Your task to perform on an android device: Open accessibility settings Image 0: 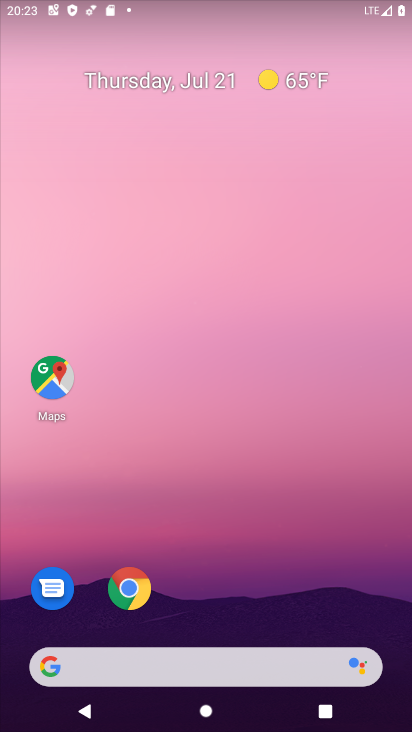
Step 0: drag from (213, 612) to (160, 40)
Your task to perform on an android device: Open accessibility settings Image 1: 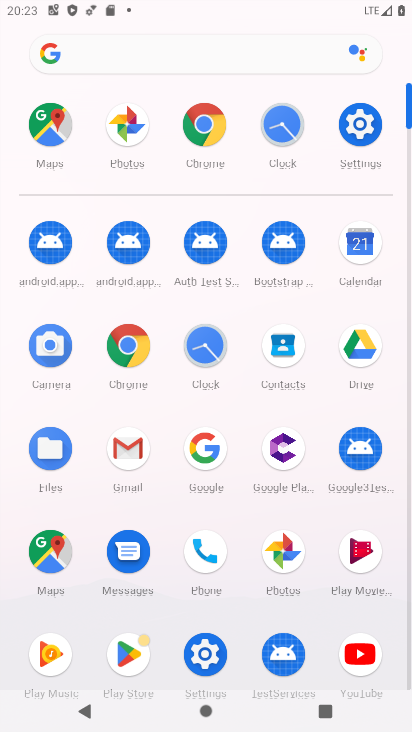
Step 1: click (355, 121)
Your task to perform on an android device: Open accessibility settings Image 2: 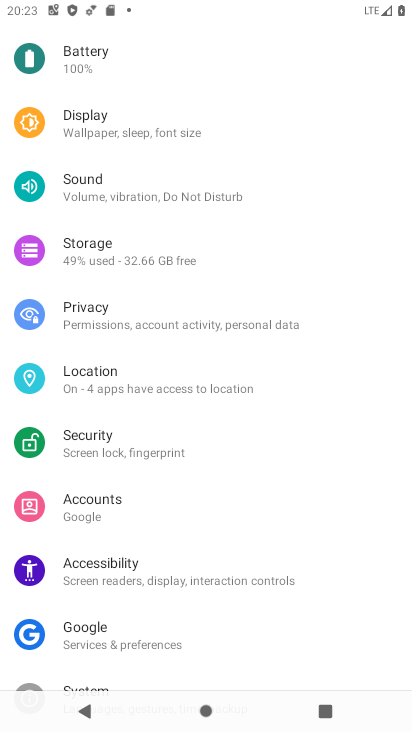
Step 2: click (120, 559)
Your task to perform on an android device: Open accessibility settings Image 3: 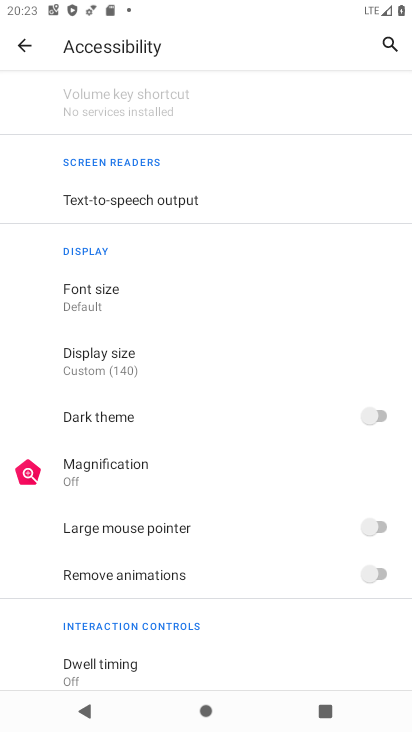
Step 3: task complete